Your task to perform on an android device: open app "Grab" (install if not already installed) Image 0: 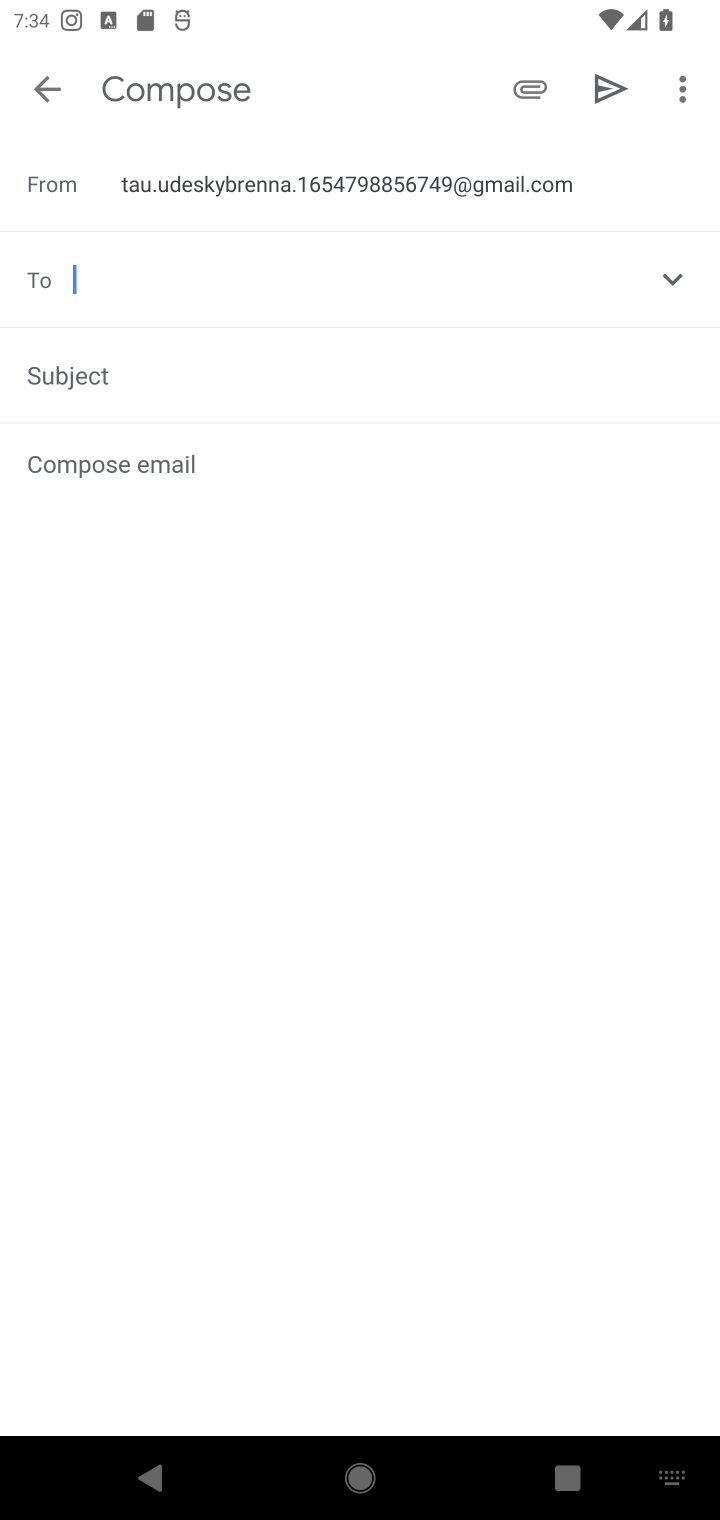
Step 0: press home button
Your task to perform on an android device: open app "Grab" (install if not already installed) Image 1: 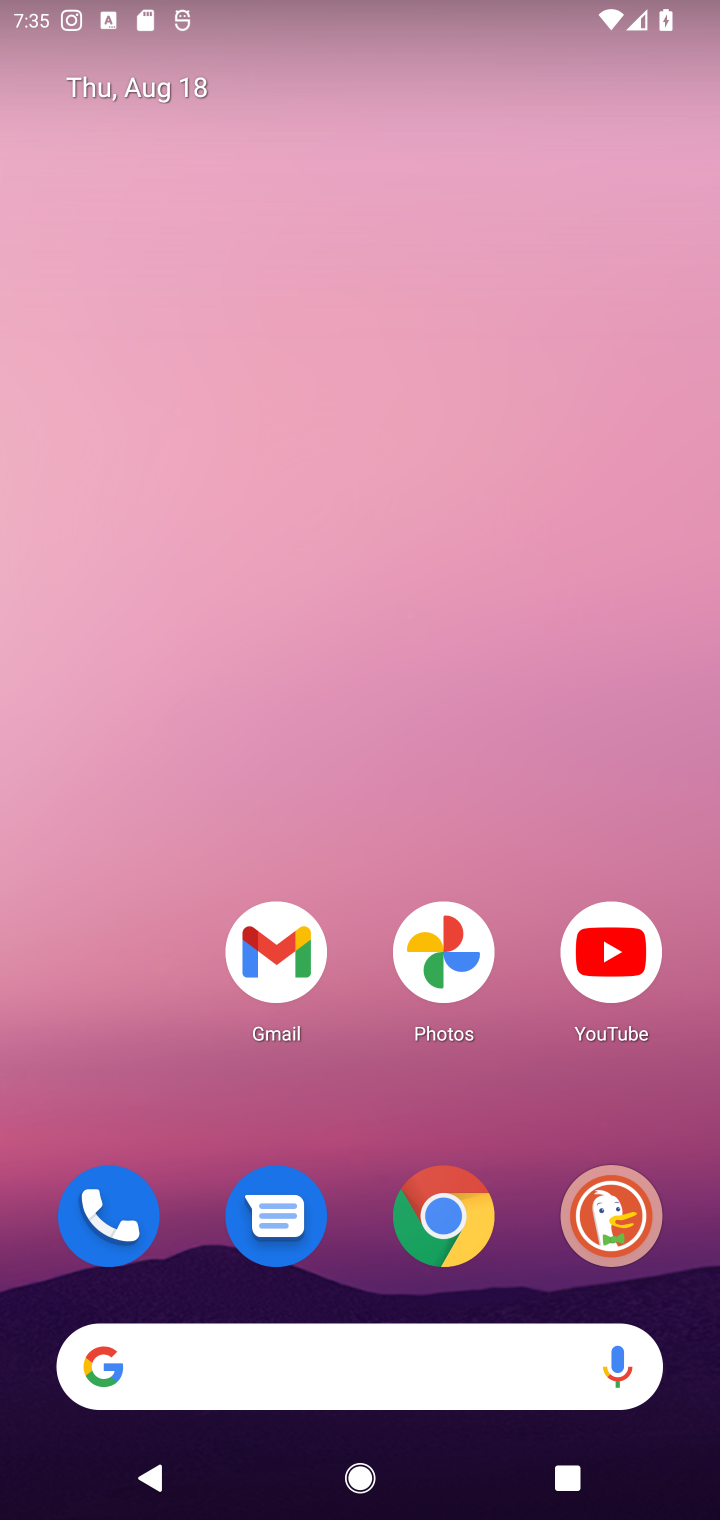
Step 1: drag from (359, 1101) to (402, 264)
Your task to perform on an android device: open app "Grab" (install if not already installed) Image 2: 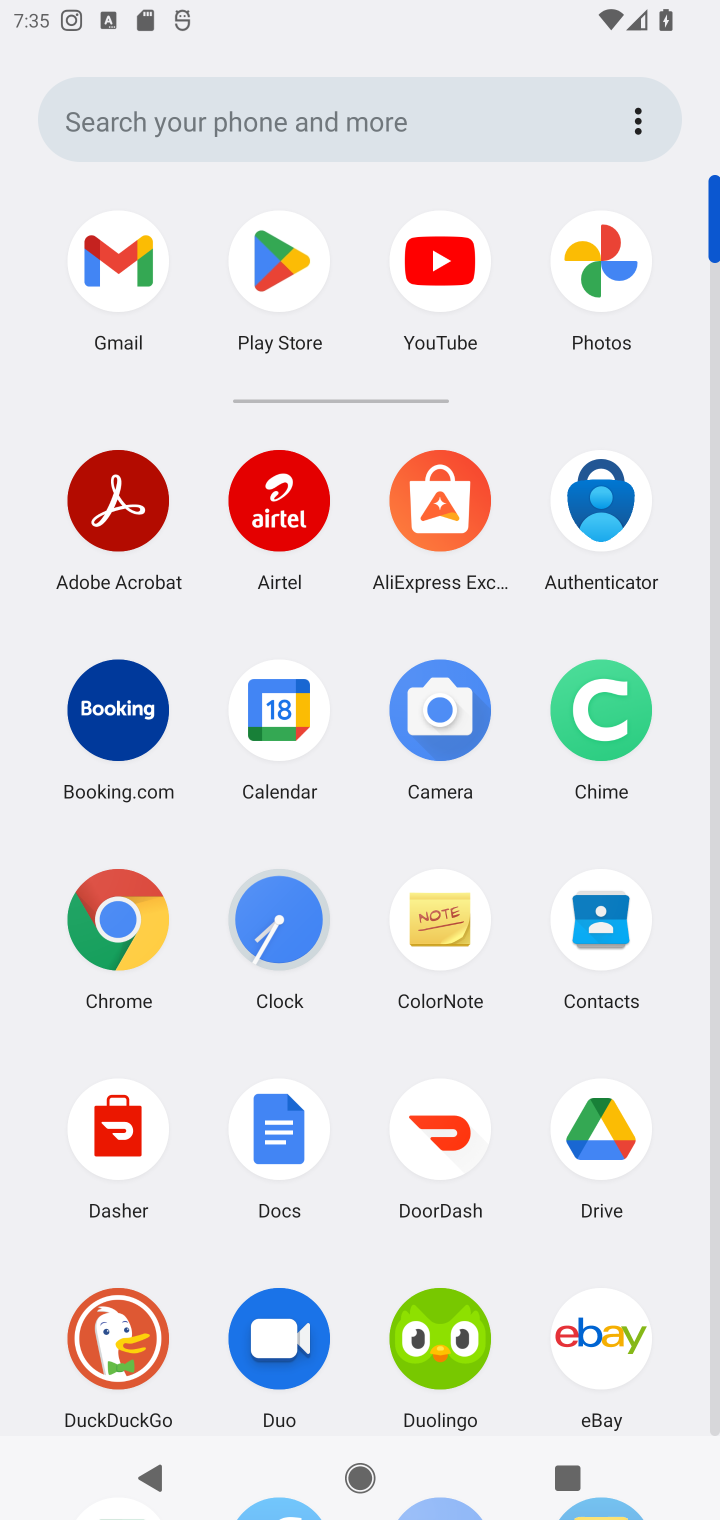
Step 2: click (295, 274)
Your task to perform on an android device: open app "Grab" (install if not already installed) Image 3: 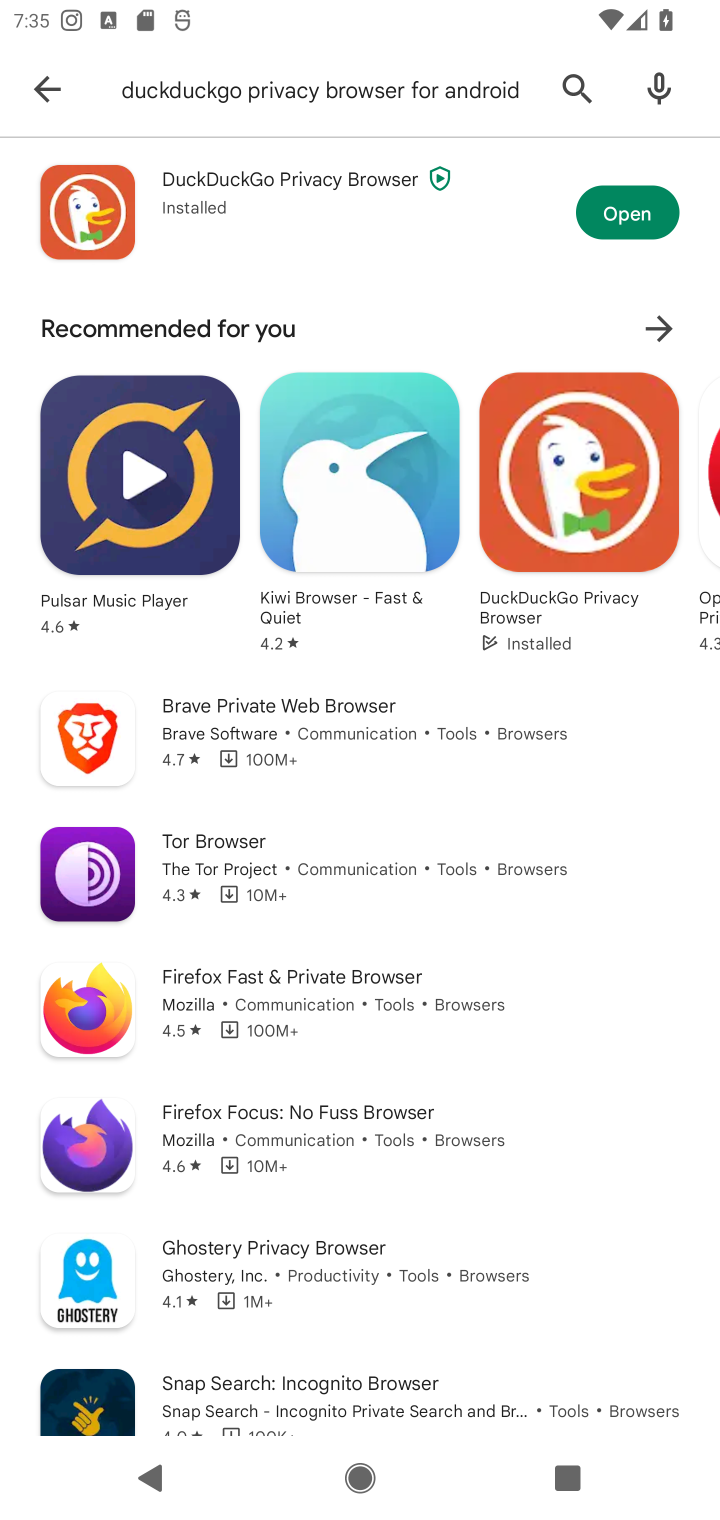
Step 3: click (570, 77)
Your task to perform on an android device: open app "Grab" (install if not already installed) Image 4: 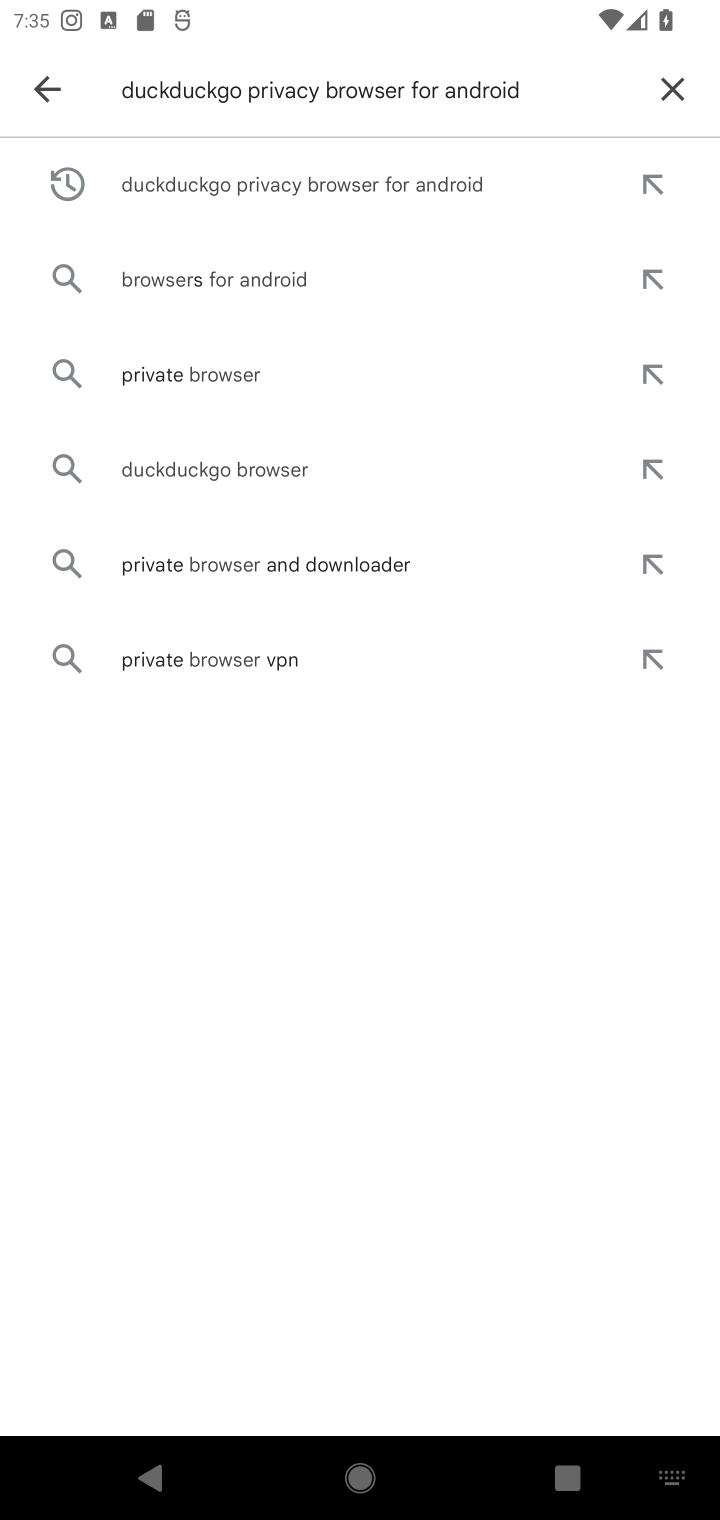
Step 4: click (670, 83)
Your task to perform on an android device: open app "Grab" (install if not already installed) Image 5: 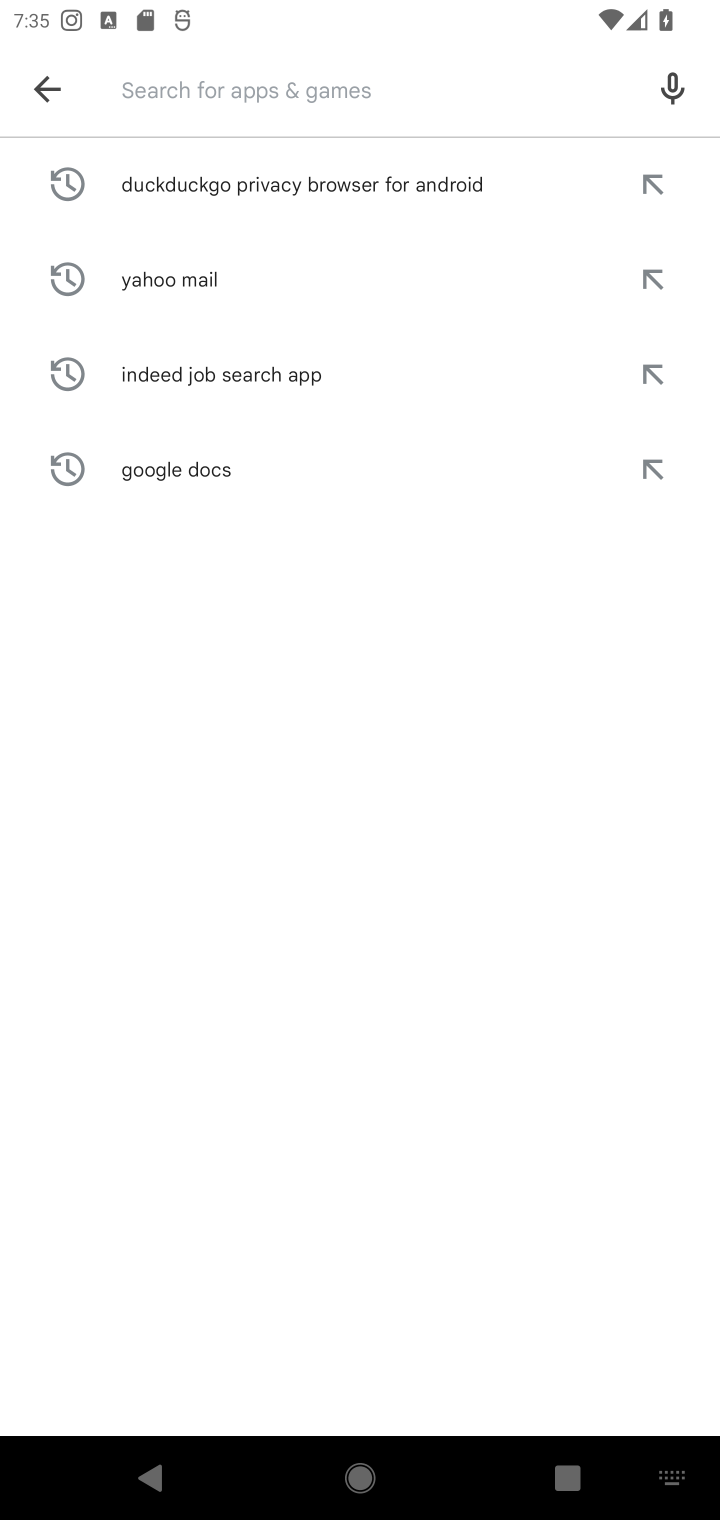
Step 5: type "Grab"
Your task to perform on an android device: open app "Grab" (install if not already installed) Image 6: 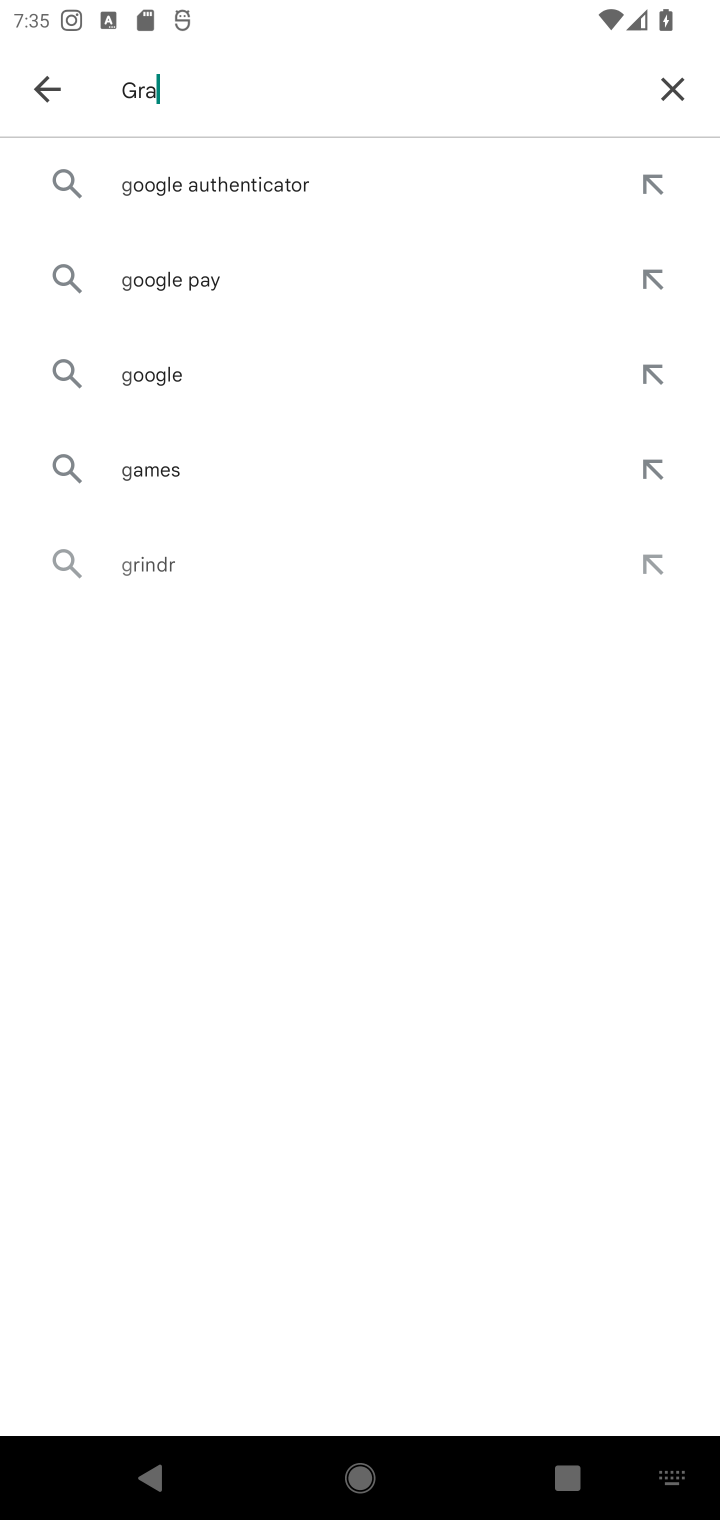
Step 6: type ""
Your task to perform on an android device: open app "Grab" (install if not already installed) Image 7: 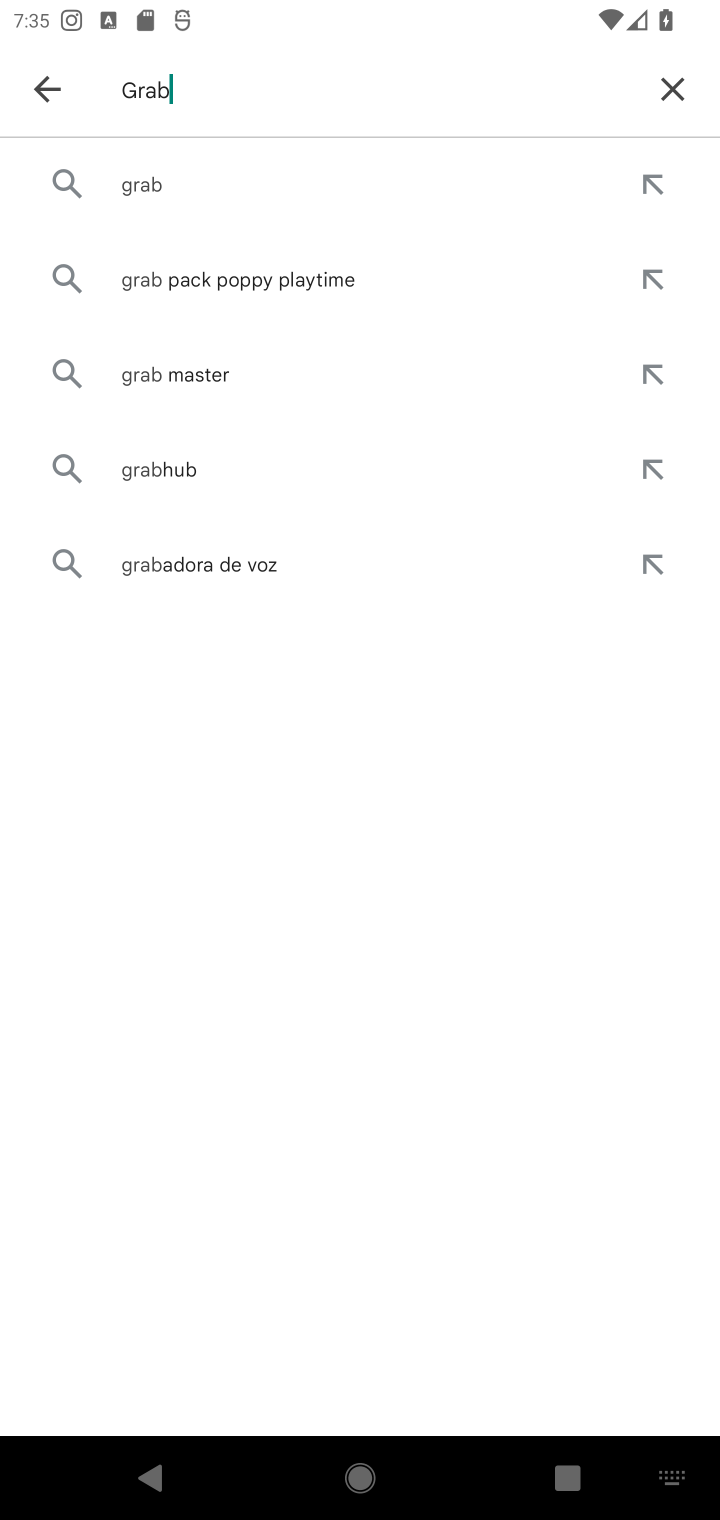
Step 7: click (208, 177)
Your task to perform on an android device: open app "Grab" (install if not already installed) Image 8: 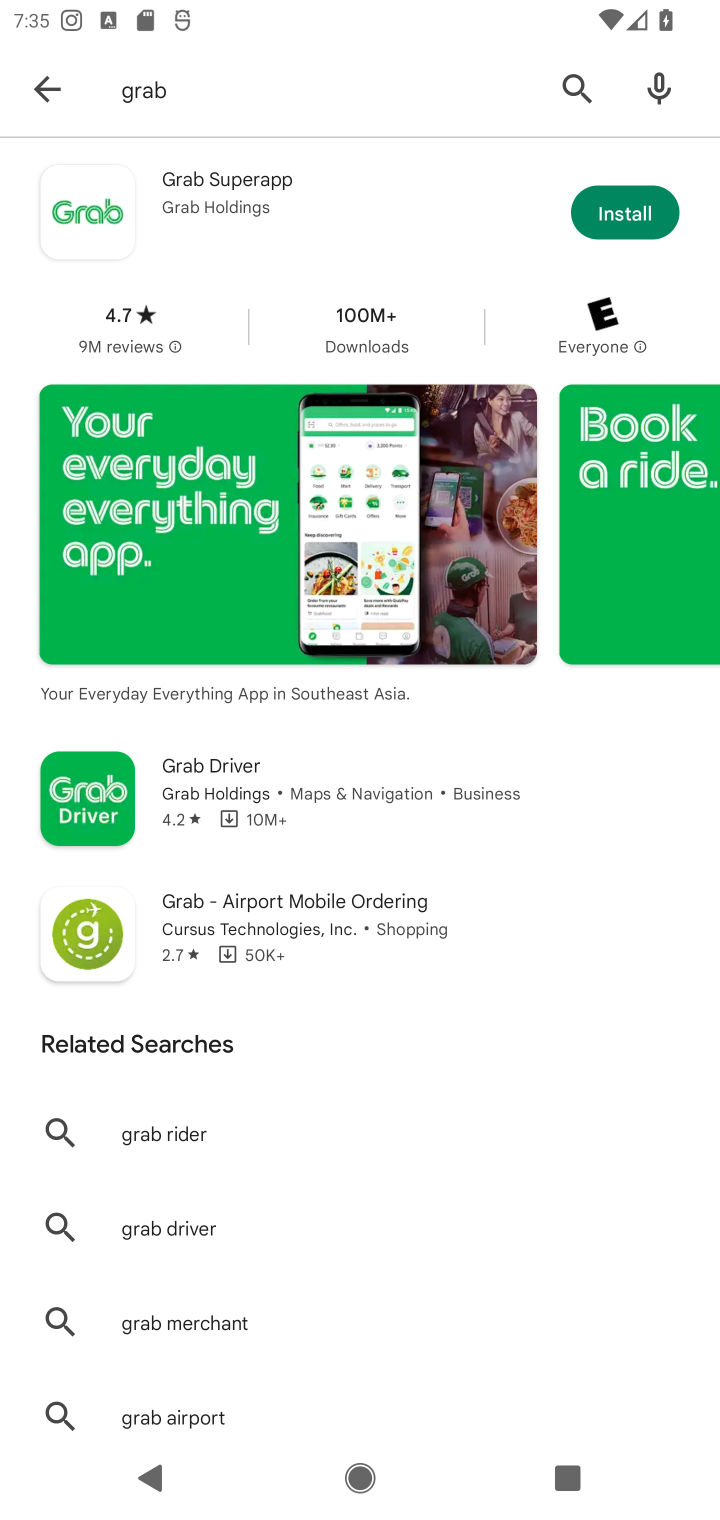
Step 8: click (605, 214)
Your task to perform on an android device: open app "Grab" (install if not already installed) Image 9: 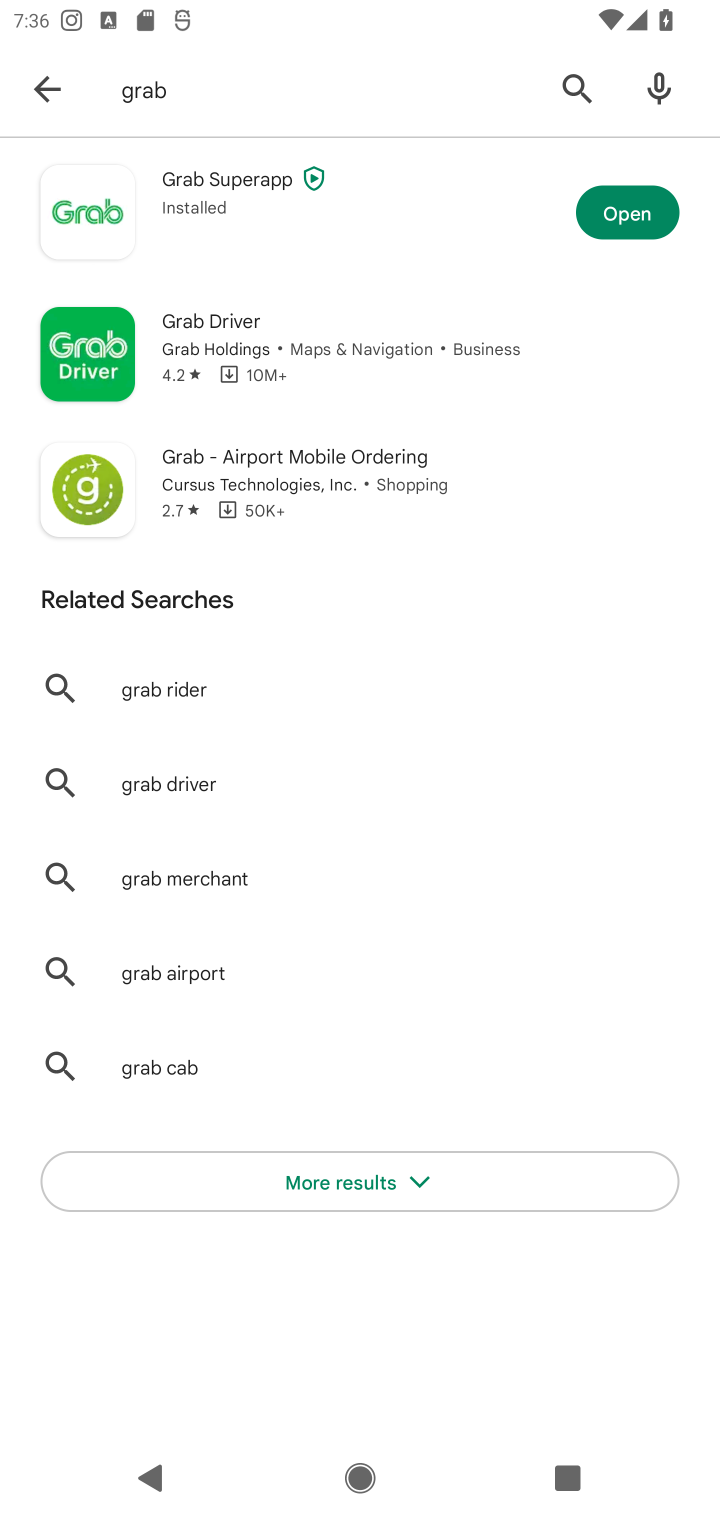
Step 9: click (622, 208)
Your task to perform on an android device: open app "Grab" (install if not already installed) Image 10: 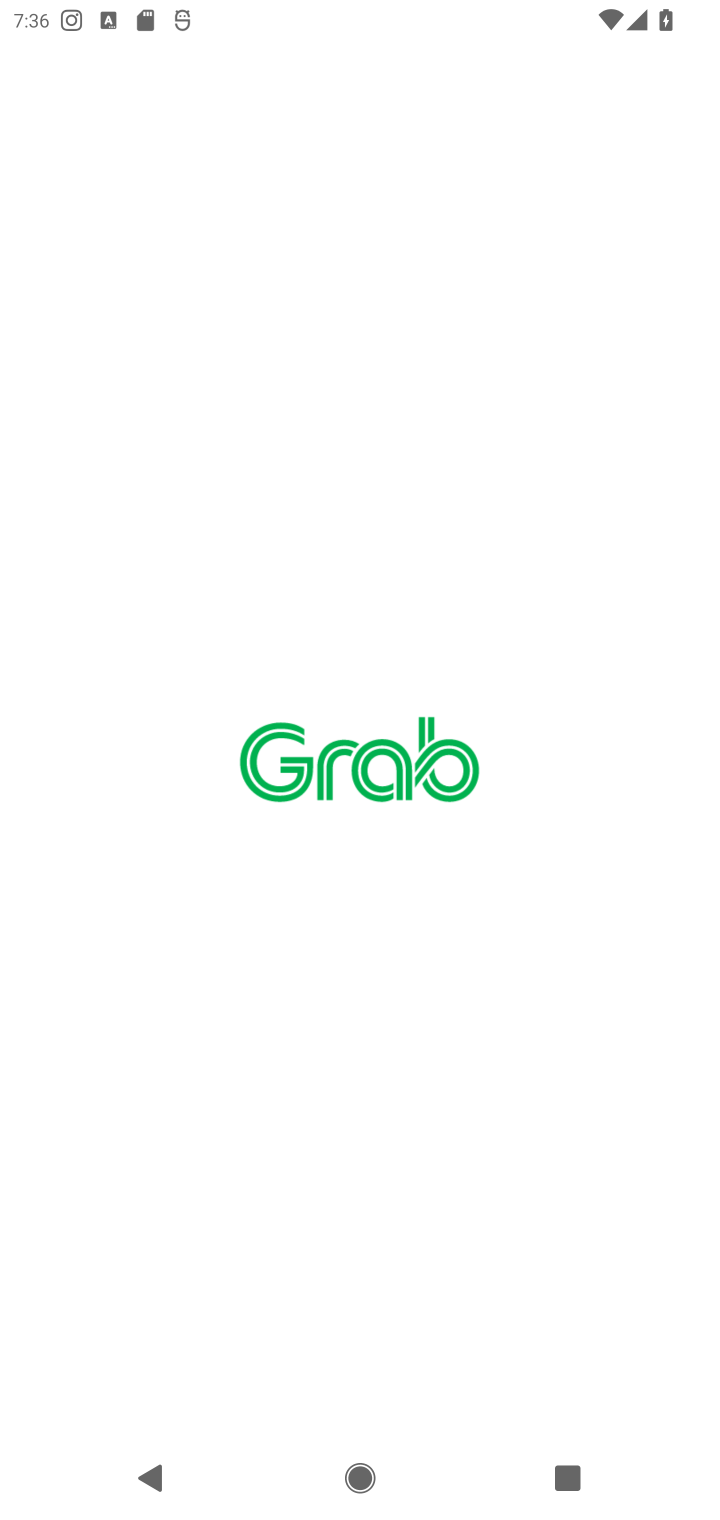
Step 10: task complete